Your task to perform on an android device: allow cookies in the chrome app Image 0: 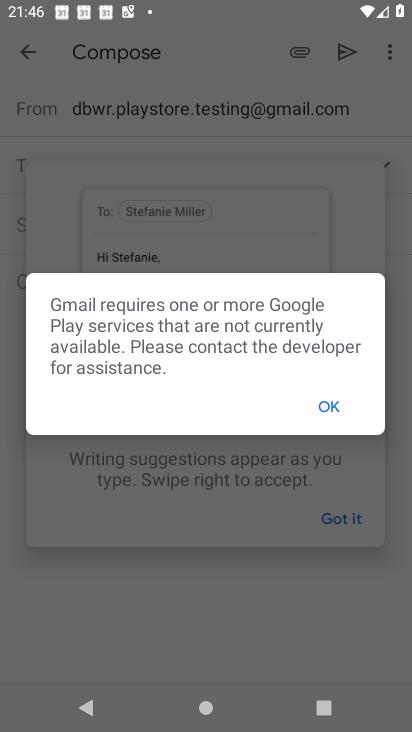
Step 0: press home button
Your task to perform on an android device: allow cookies in the chrome app Image 1: 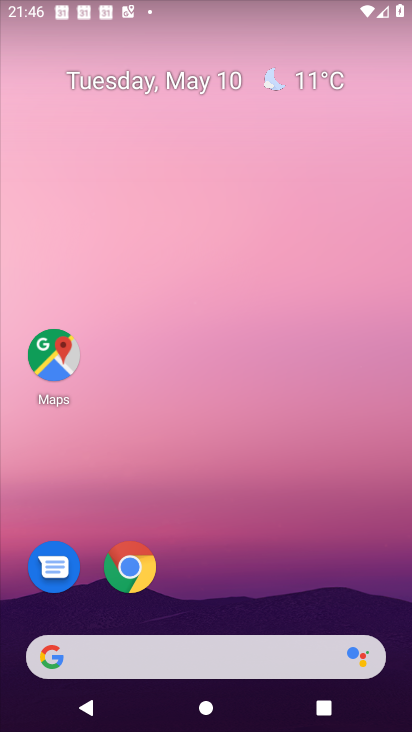
Step 1: click (135, 571)
Your task to perform on an android device: allow cookies in the chrome app Image 2: 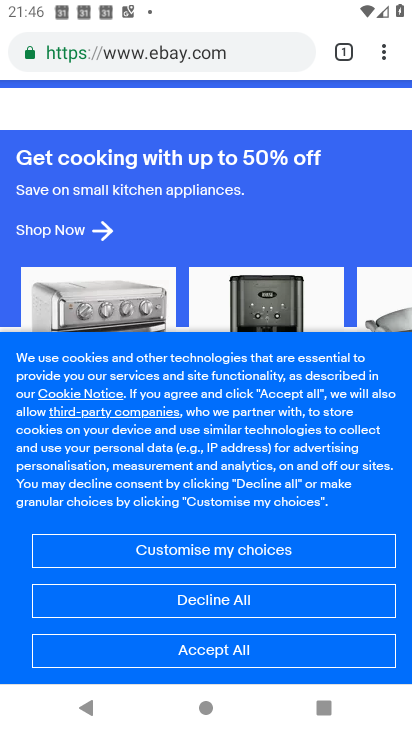
Step 2: click (388, 56)
Your task to perform on an android device: allow cookies in the chrome app Image 3: 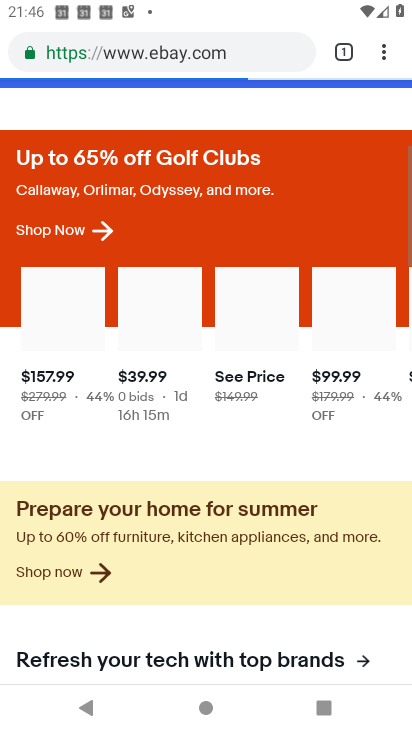
Step 3: click (379, 54)
Your task to perform on an android device: allow cookies in the chrome app Image 4: 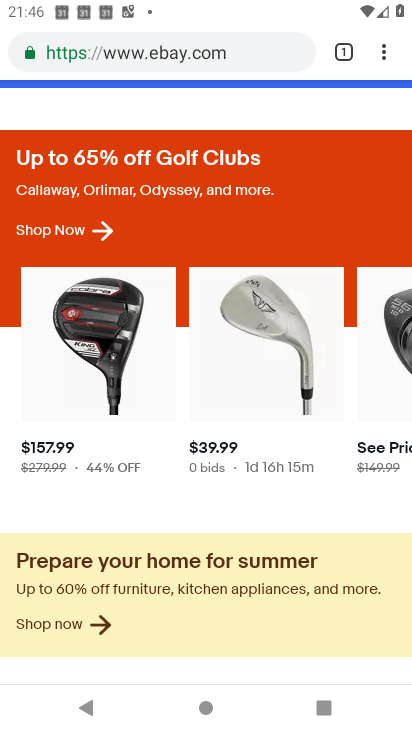
Step 4: click (386, 49)
Your task to perform on an android device: allow cookies in the chrome app Image 5: 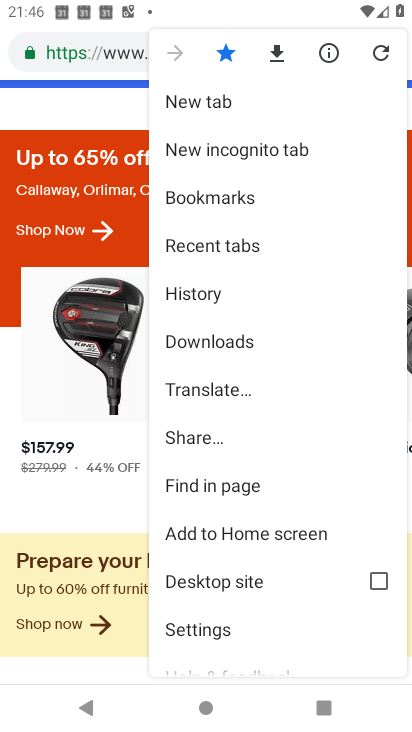
Step 5: click (200, 628)
Your task to perform on an android device: allow cookies in the chrome app Image 6: 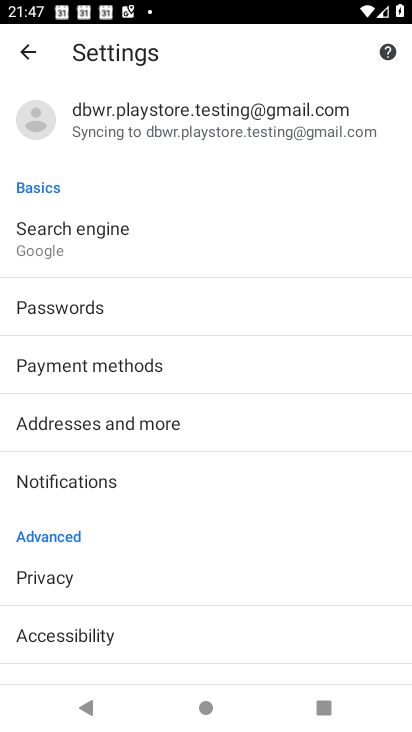
Step 6: drag from (59, 644) to (117, 304)
Your task to perform on an android device: allow cookies in the chrome app Image 7: 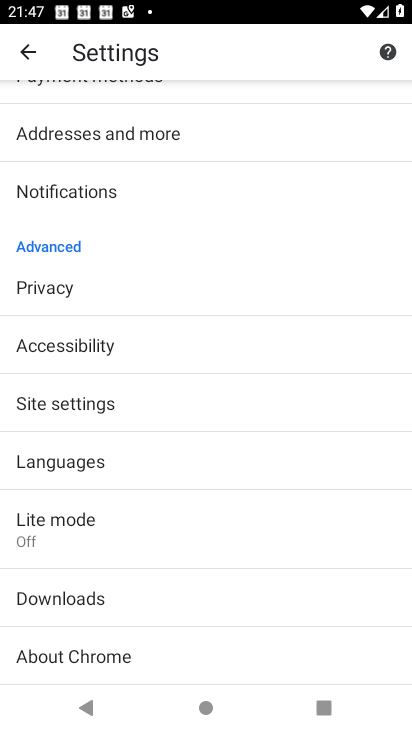
Step 7: click (35, 404)
Your task to perform on an android device: allow cookies in the chrome app Image 8: 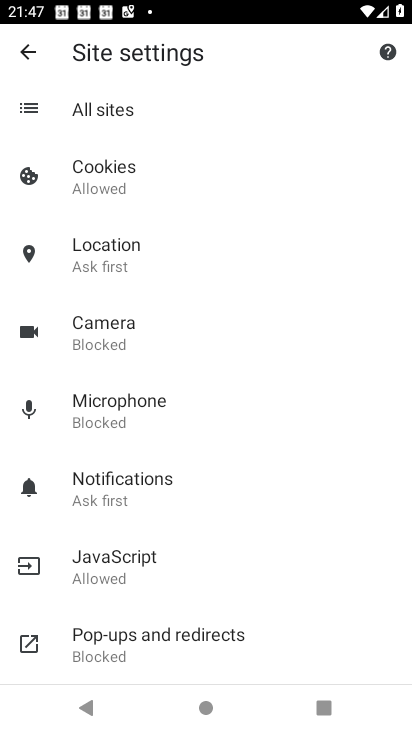
Step 8: click (79, 186)
Your task to perform on an android device: allow cookies in the chrome app Image 9: 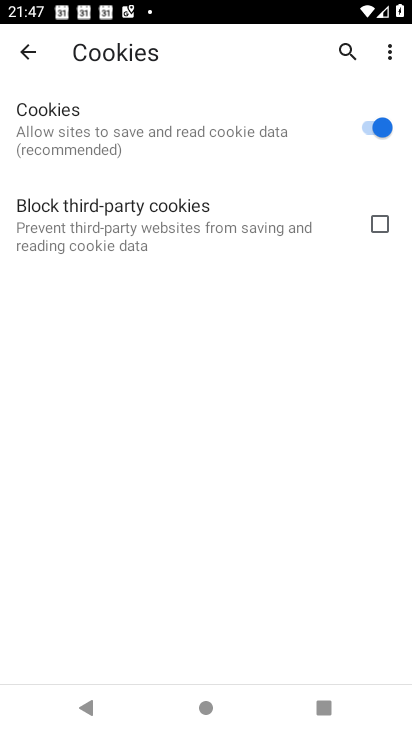
Step 9: task complete